Your task to perform on an android device: What's on my calendar tomorrow? Image 0: 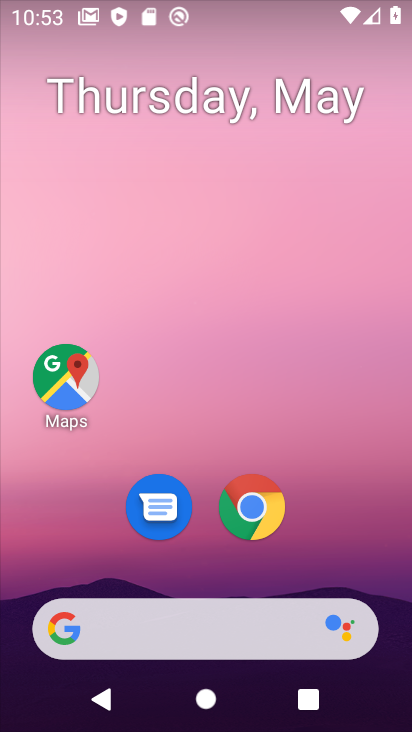
Step 0: drag from (197, 484) to (206, 264)
Your task to perform on an android device: What's on my calendar tomorrow? Image 1: 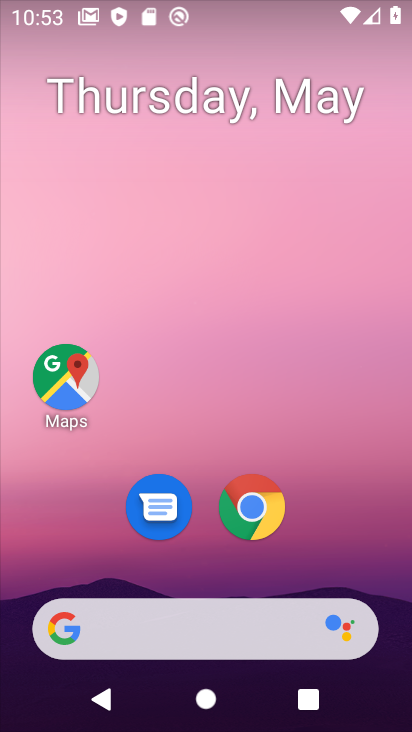
Step 1: drag from (197, 553) to (173, 98)
Your task to perform on an android device: What's on my calendar tomorrow? Image 2: 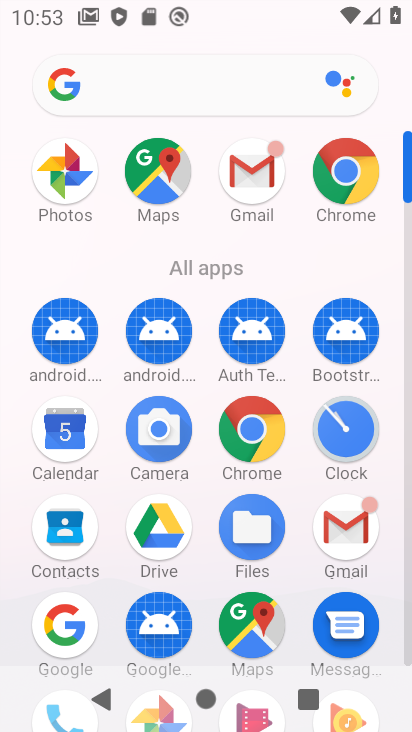
Step 2: click (75, 436)
Your task to perform on an android device: What's on my calendar tomorrow? Image 3: 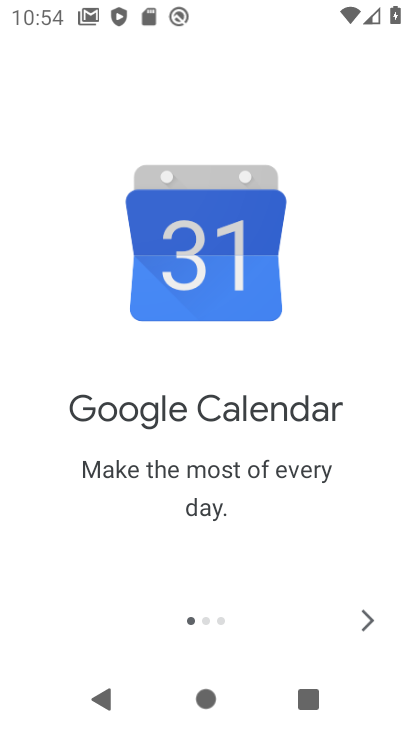
Step 3: click (367, 622)
Your task to perform on an android device: What's on my calendar tomorrow? Image 4: 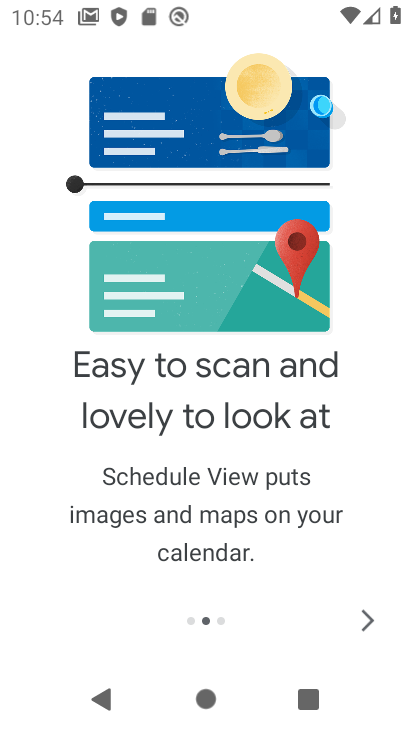
Step 4: click (367, 622)
Your task to perform on an android device: What's on my calendar tomorrow? Image 5: 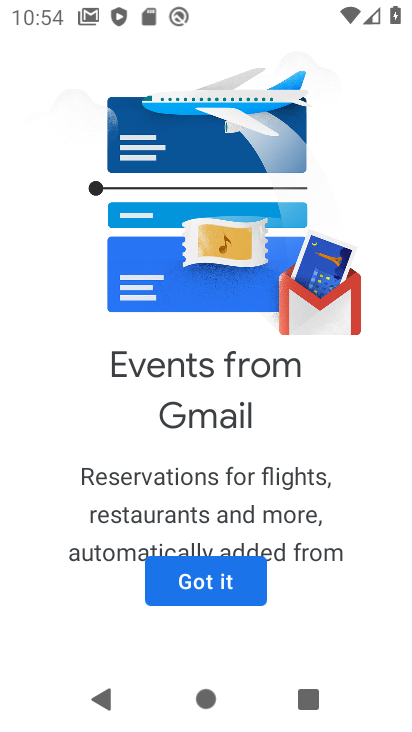
Step 5: click (187, 588)
Your task to perform on an android device: What's on my calendar tomorrow? Image 6: 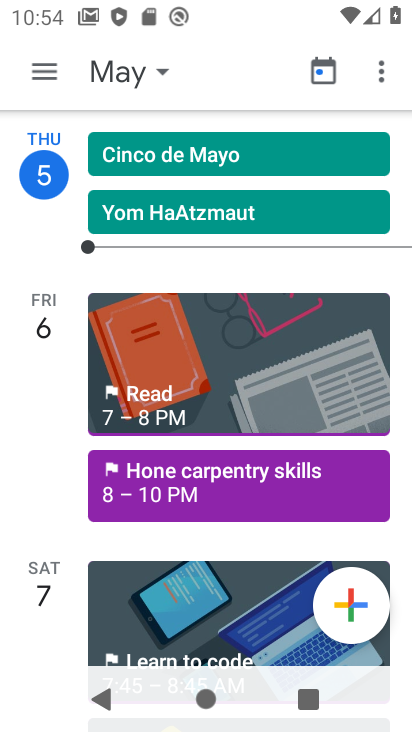
Step 6: click (47, 75)
Your task to perform on an android device: What's on my calendar tomorrow? Image 7: 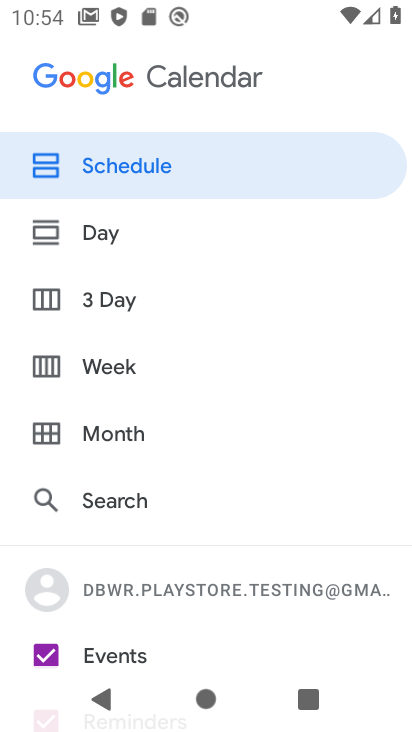
Step 7: drag from (178, 620) to (217, 247)
Your task to perform on an android device: What's on my calendar tomorrow? Image 8: 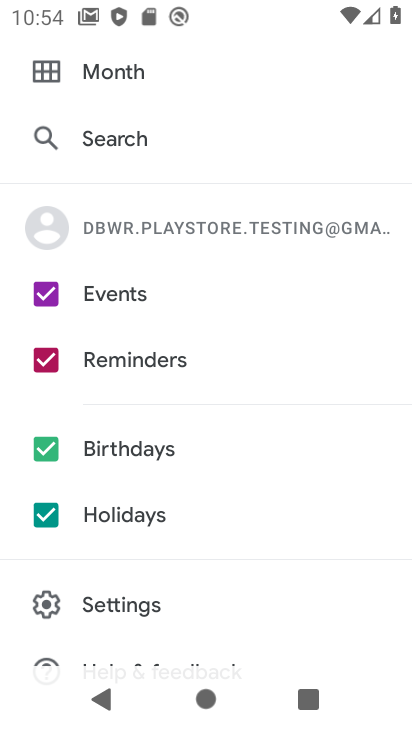
Step 8: click (46, 358)
Your task to perform on an android device: What's on my calendar tomorrow? Image 9: 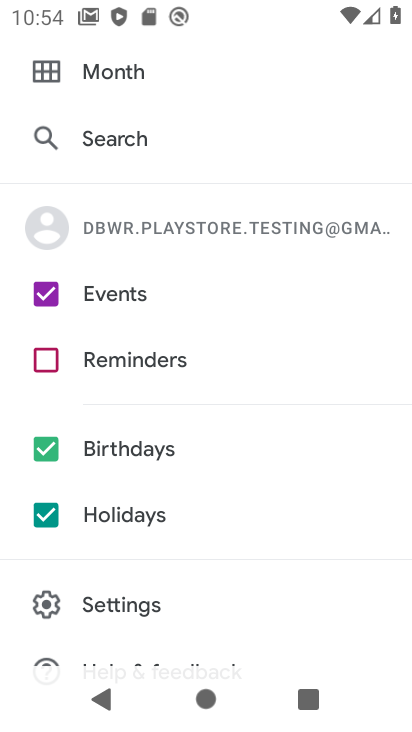
Step 9: click (42, 445)
Your task to perform on an android device: What's on my calendar tomorrow? Image 10: 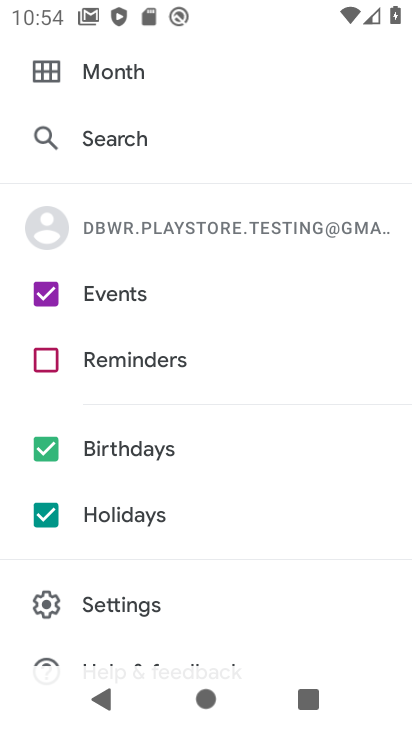
Step 10: click (40, 518)
Your task to perform on an android device: What's on my calendar tomorrow? Image 11: 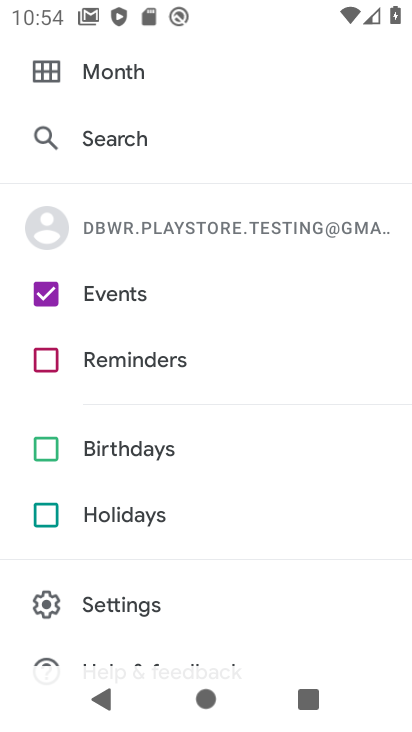
Step 11: press back button
Your task to perform on an android device: What's on my calendar tomorrow? Image 12: 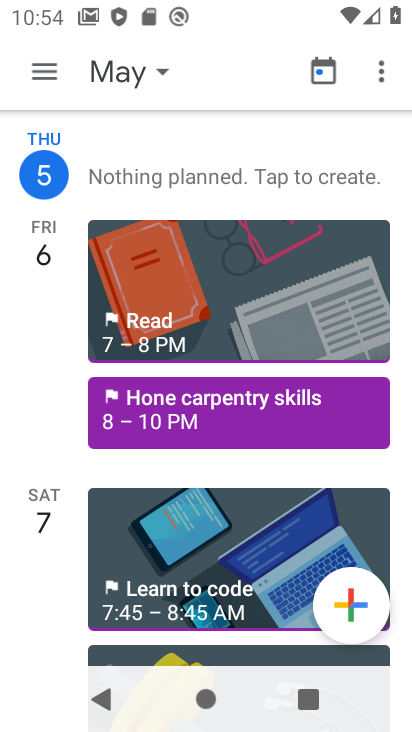
Step 12: click (40, 518)
Your task to perform on an android device: What's on my calendar tomorrow? Image 13: 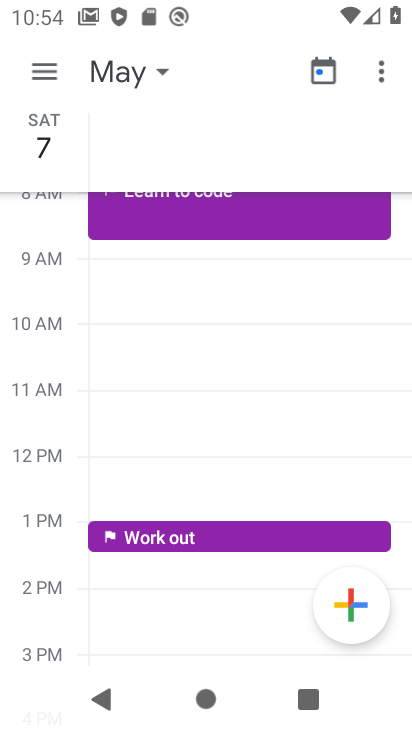
Step 13: task complete